Your task to perform on an android device: toggle improve location accuracy Image 0: 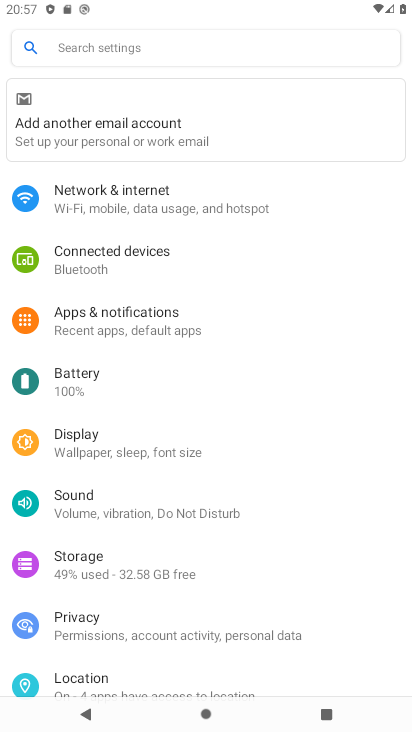
Step 0: press home button
Your task to perform on an android device: toggle improve location accuracy Image 1: 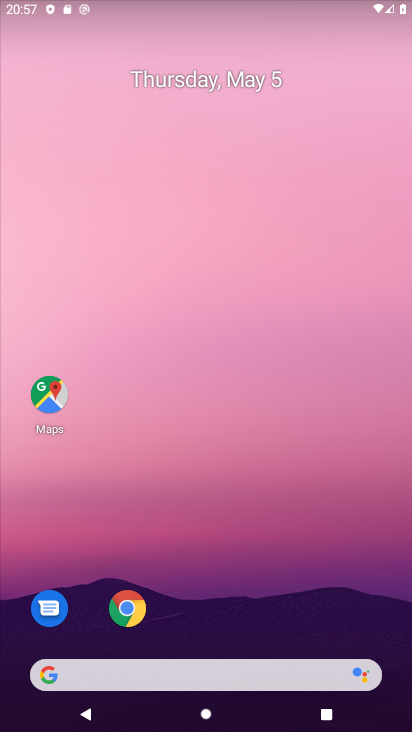
Step 1: drag from (235, 640) to (192, 11)
Your task to perform on an android device: toggle improve location accuracy Image 2: 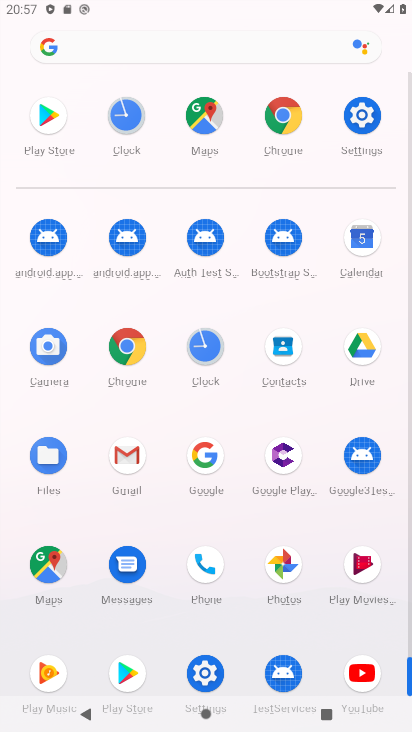
Step 2: click (355, 111)
Your task to perform on an android device: toggle improve location accuracy Image 3: 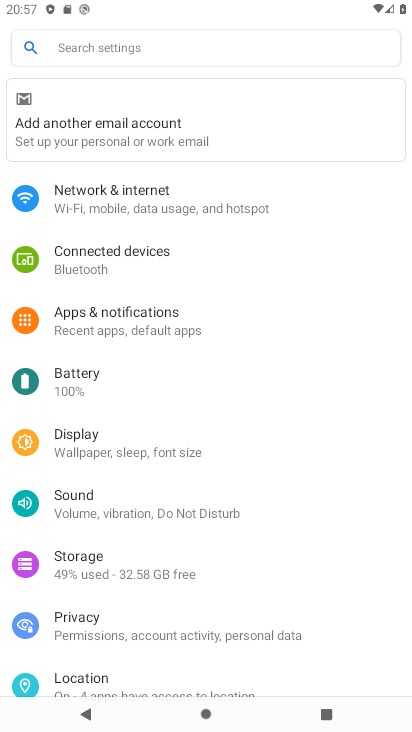
Step 3: click (141, 683)
Your task to perform on an android device: toggle improve location accuracy Image 4: 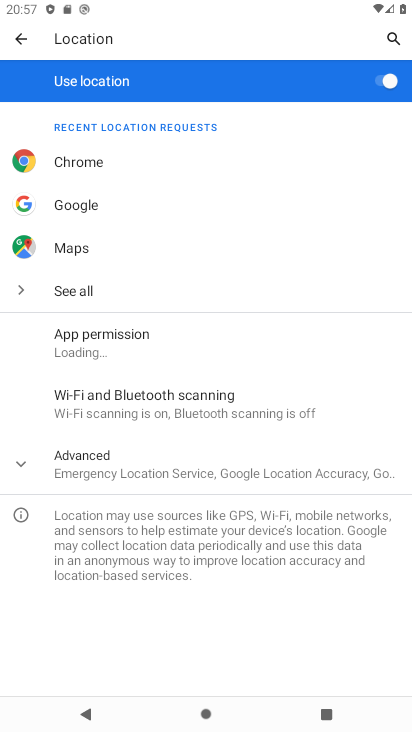
Step 4: click (129, 462)
Your task to perform on an android device: toggle improve location accuracy Image 5: 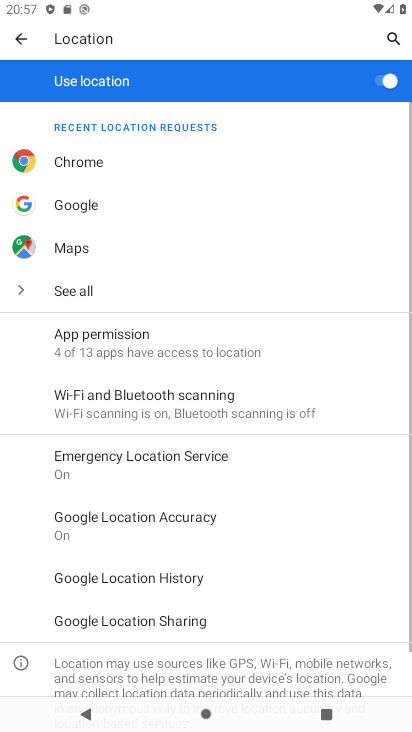
Step 5: click (194, 528)
Your task to perform on an android device: toggle improve location accuracy Image 6: 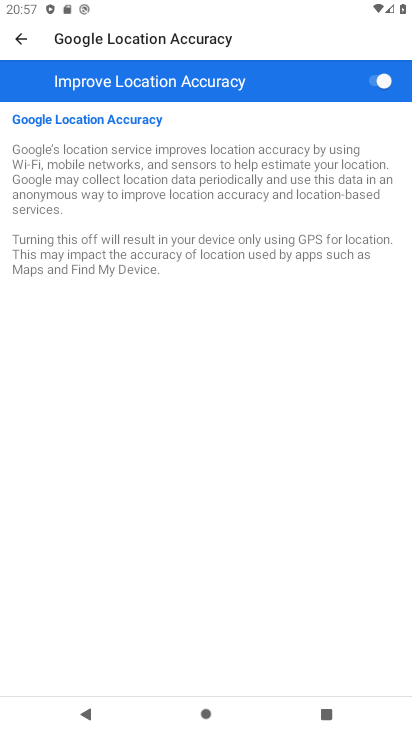
Step 6: click (374, 80)
Your task to perform on an android device: toggle improve location accuracy Image 7: 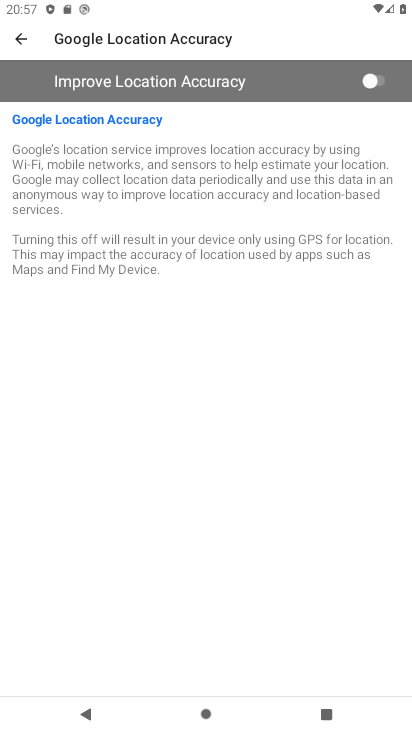
Step 7: task complete